Your task to perform on an android device: Show me productivity apps on the Play Store Image 0: 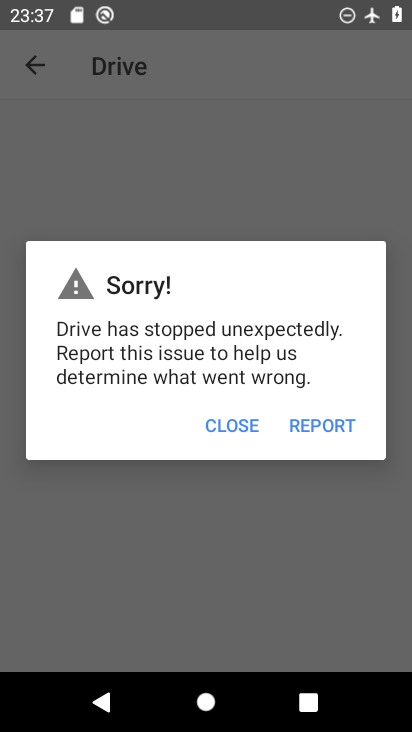
Step 0: press home button
Your task to perform on an android device: Show me productivity apps on the Play Store Image 1: 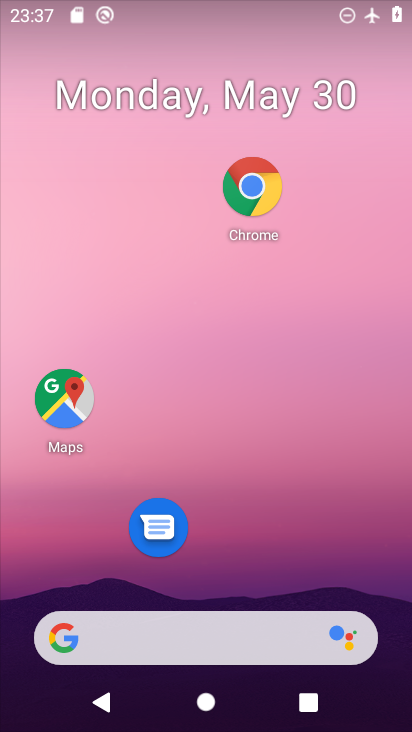
Step 1: drag from (253, 585) to (244, 263)
Your task to perform on an android device: Show me productivity apps on the Play Store Image 2: 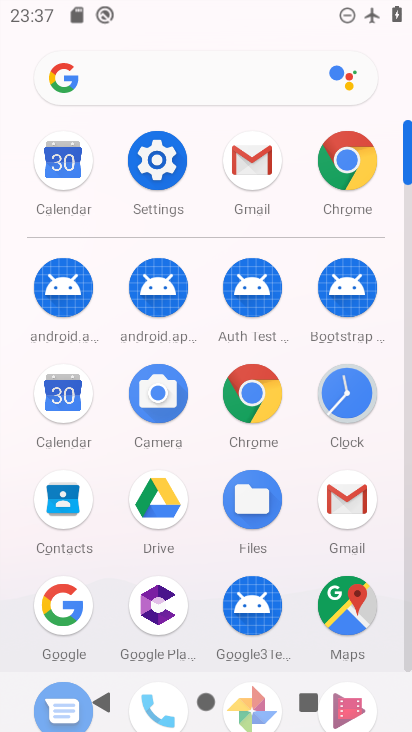
Step 2: drag from (204, 585) to (219, 362)
Your task to perform on an android device: Show me productivity apps on the Play Store Image 3: 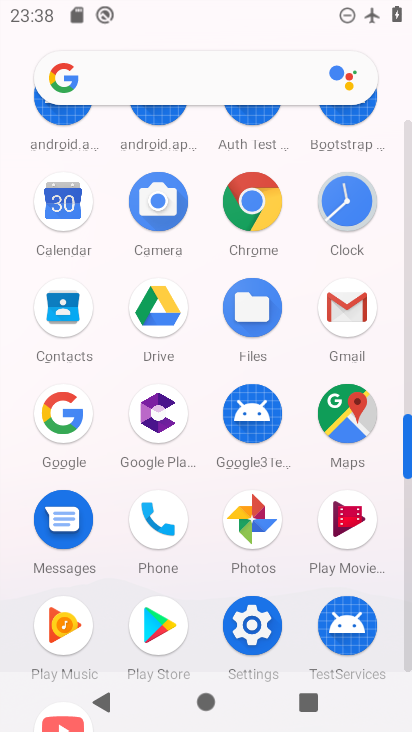
Step 3: click (148, 615)
Your task to perform on an android device: Show me productivity apps on the Play Store Image 4: 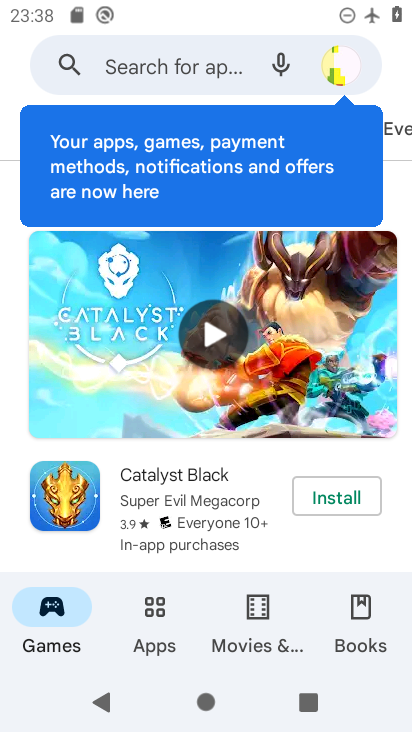
Step 4: task complete